Your task to perform on an android device: open a new tab in the chrome app Image 0: 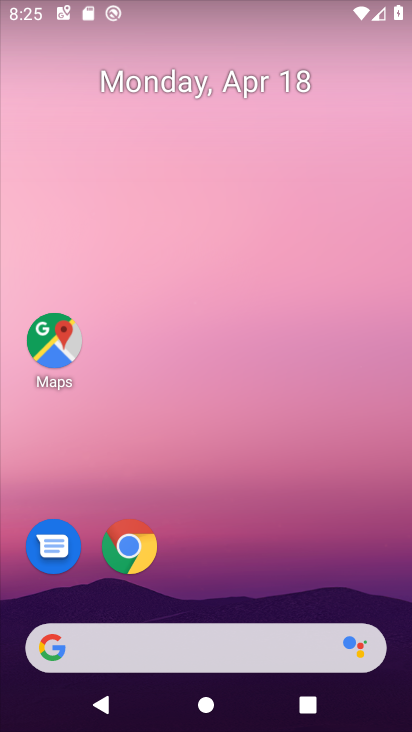
Step 0: click (141, 562)
Your task to perform on an android device: open a new tab in the chrome app Image 1: 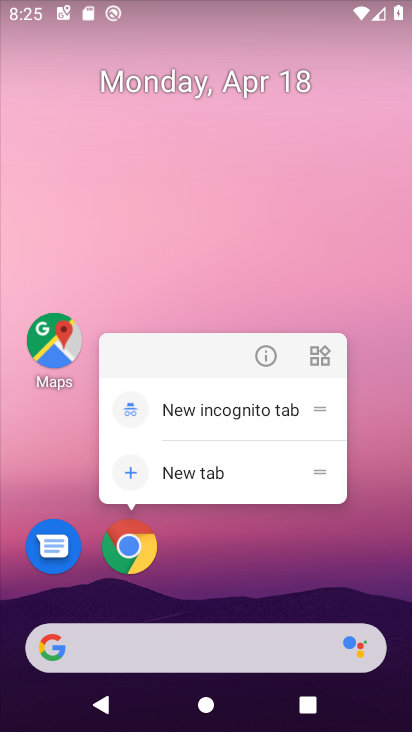
Step 1: click (141, 562)
Your task to perform on an android device: open a new tab in the chrome app Image 2: 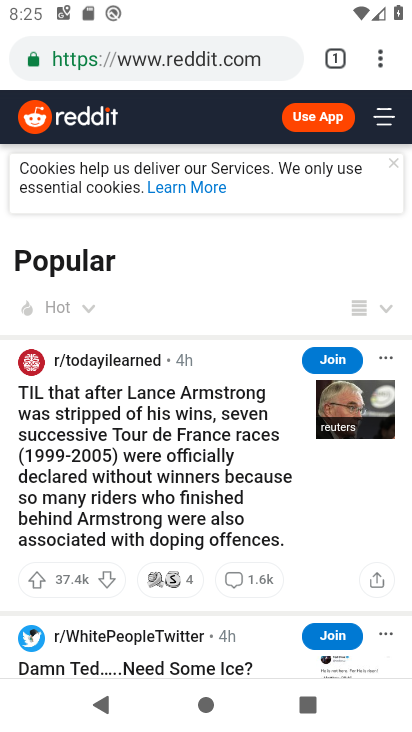
Step 2: task complete